Your task to perform on an android device: open app "Cash App" (install if not already installed) and enter user name: "submodules@gmail.com" and password: "heavenly" Image 0: 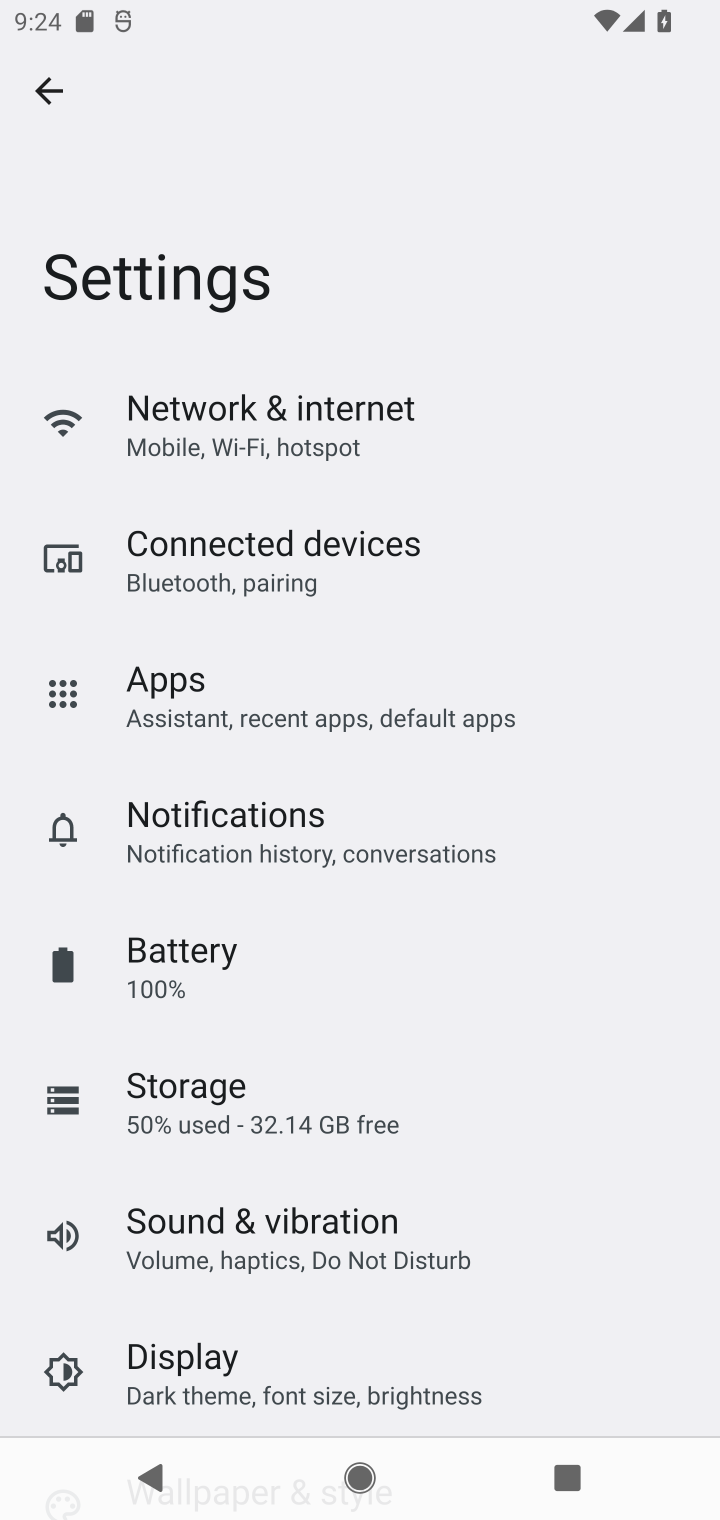
Step 0: press home button
Your task to perform on an android device: open app "Cash App" (install if not already installed) and enter user name: "submodules@gmail.com" and password: "heavenly" Image 1: 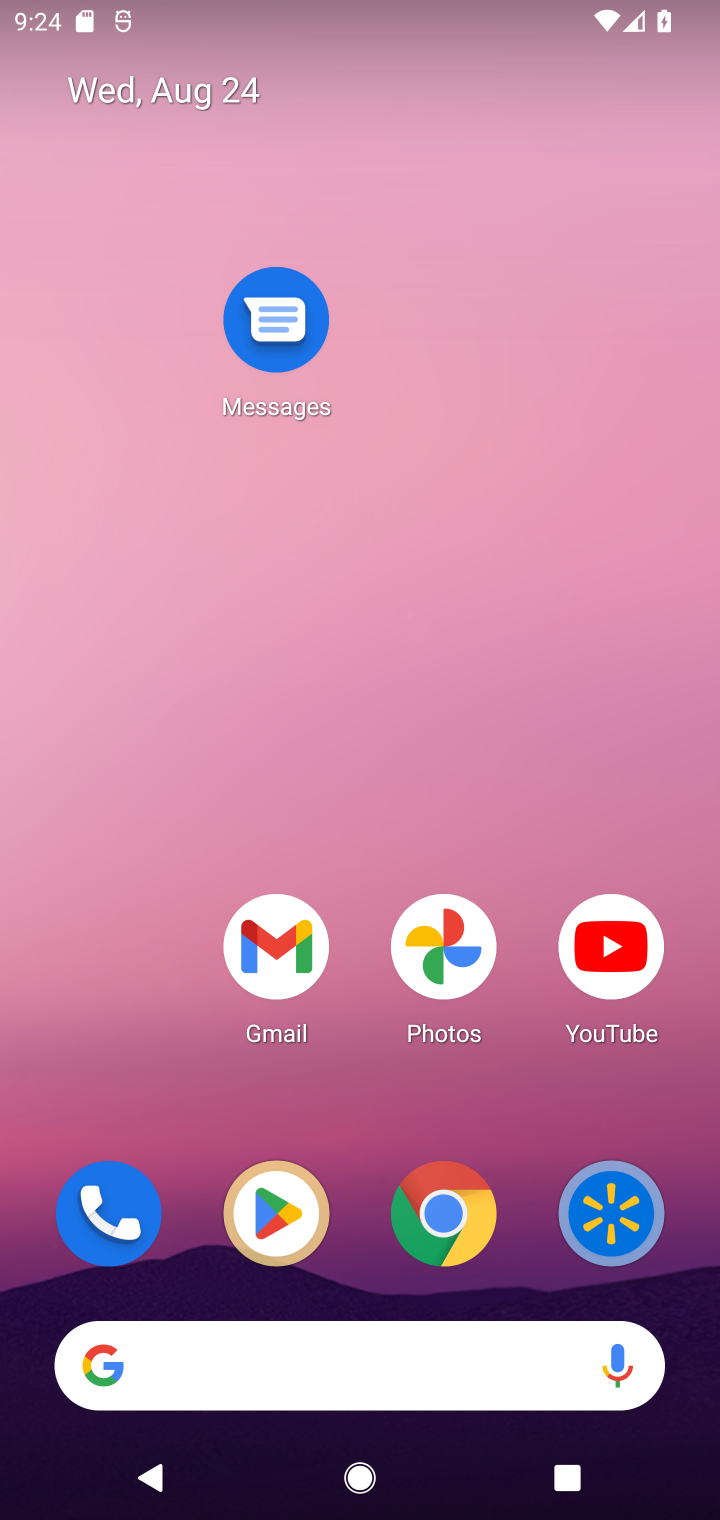
Step 1: click (277, 1210)
Your task to perform on an android device: open app "Cash App" (install if not already installed) and enter user name: "submodules@gmail.com" and password: "heavenly" Image 2: 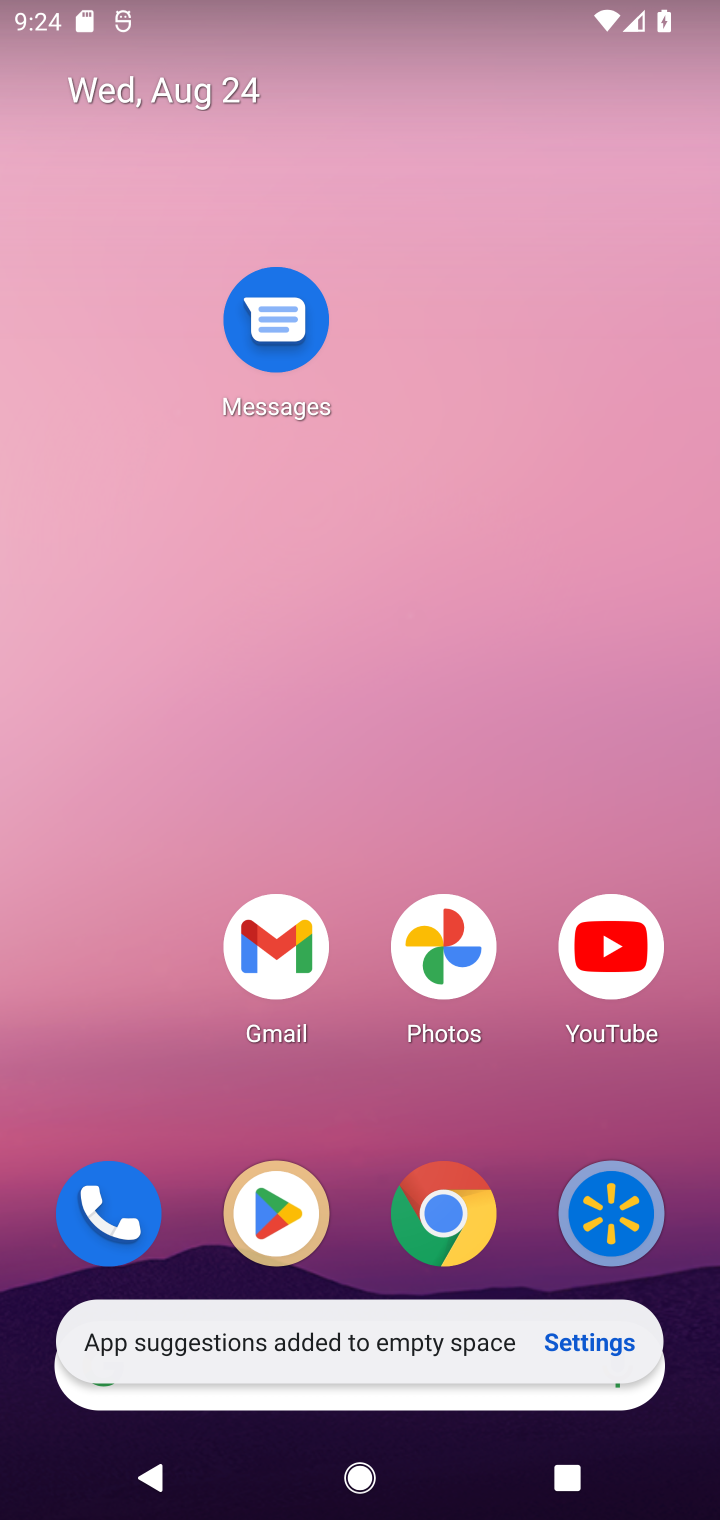
Step 2: click (288, 1207)
Your task to perform on an android device: open app "Cash App" (install if not already installed) and enter user name: "submodules@gmail.com" and password: "heavenly" Image 3: 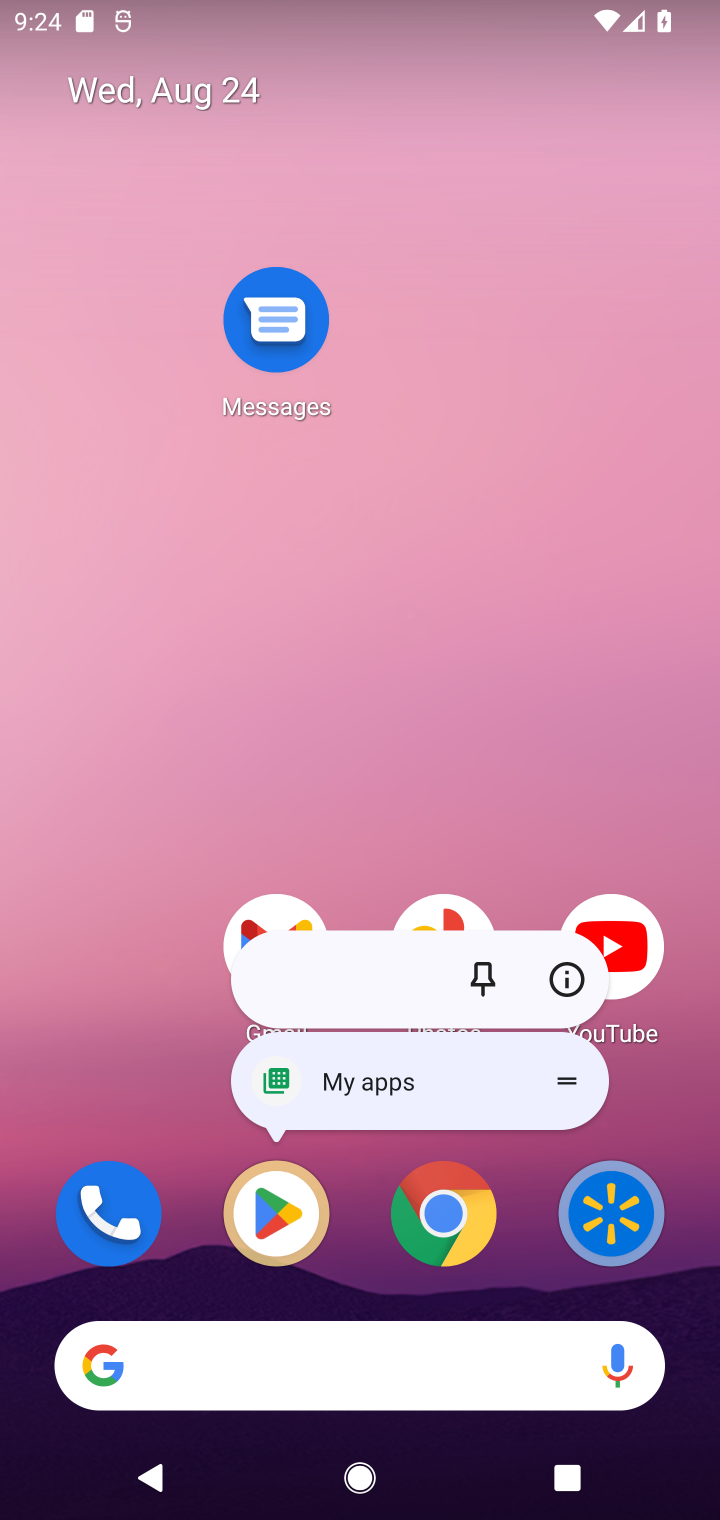
Step 3: click (290, 1209)
Your task to perform on an android device: open app "Cash App" (install if not already installed) and enter user name: "submodules@gmail.com" and password: "heavenly" Image 4: 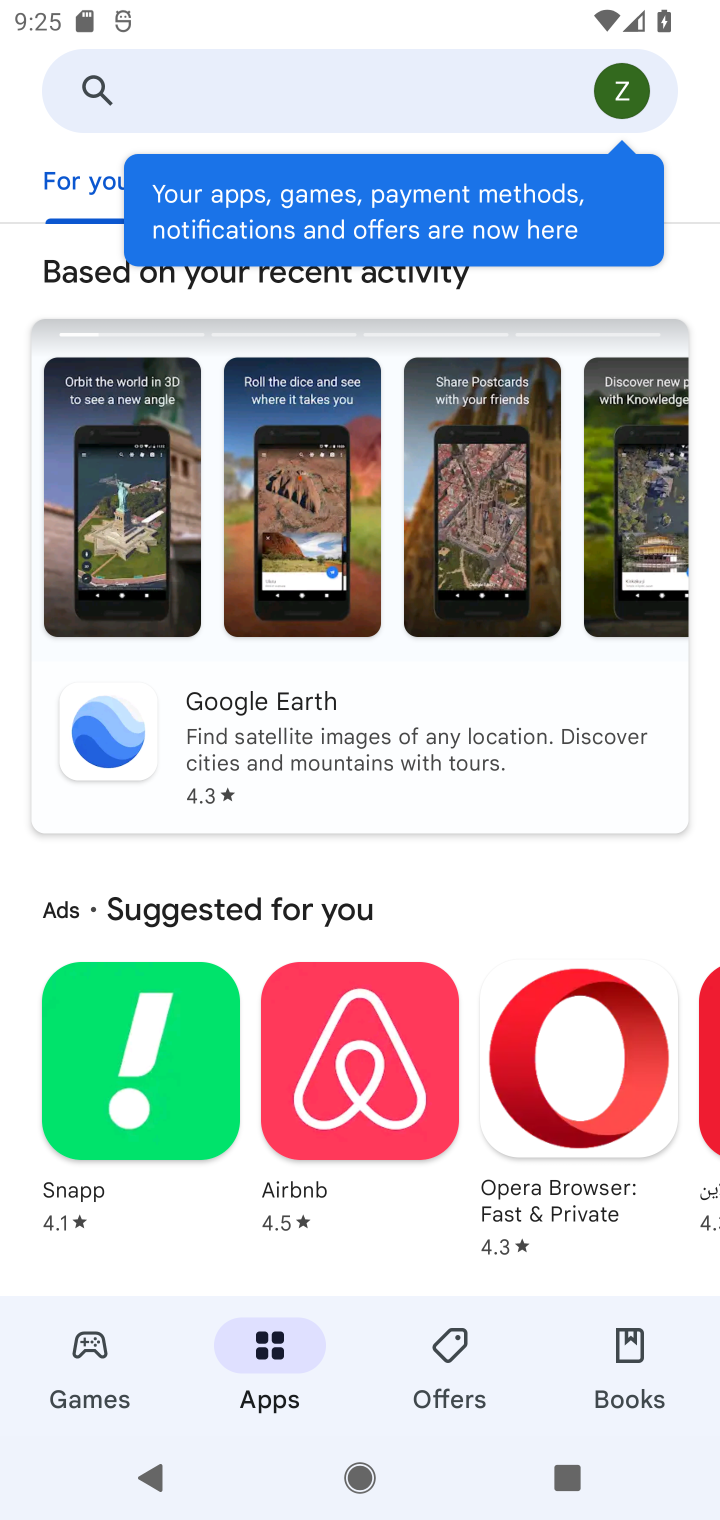
Step 4: click (353, 95)
Your task to perform on an android device: open app "Cash App" (install if not already installed) and enter user name: "submodules@gmail.com" and password: "heavenly" Image 5: 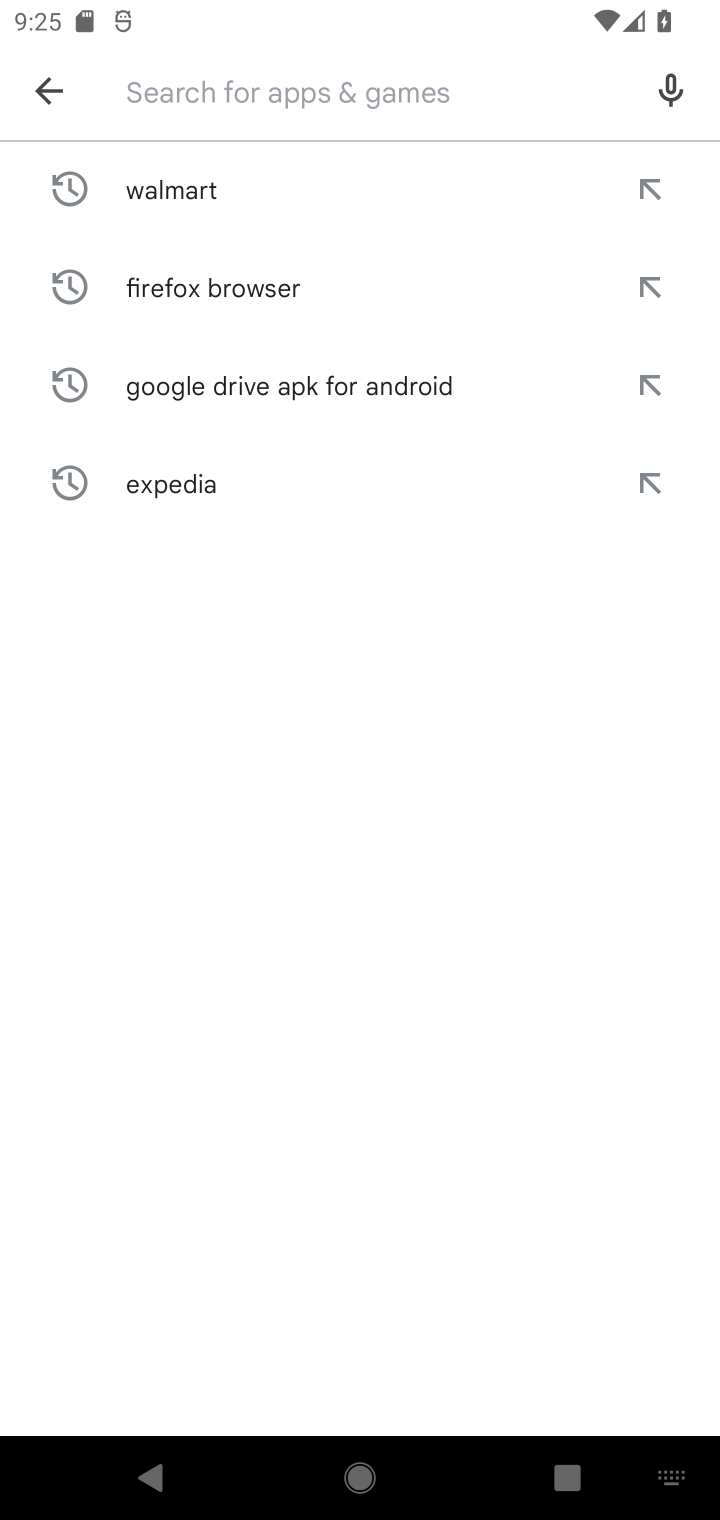
Step 5: type "CashAPp"
Your task to perform on an android device: open app "Cash App" (install if not already installed) and enter user name: "submodules@gmail.com" and password: "heavenly" Image 6: 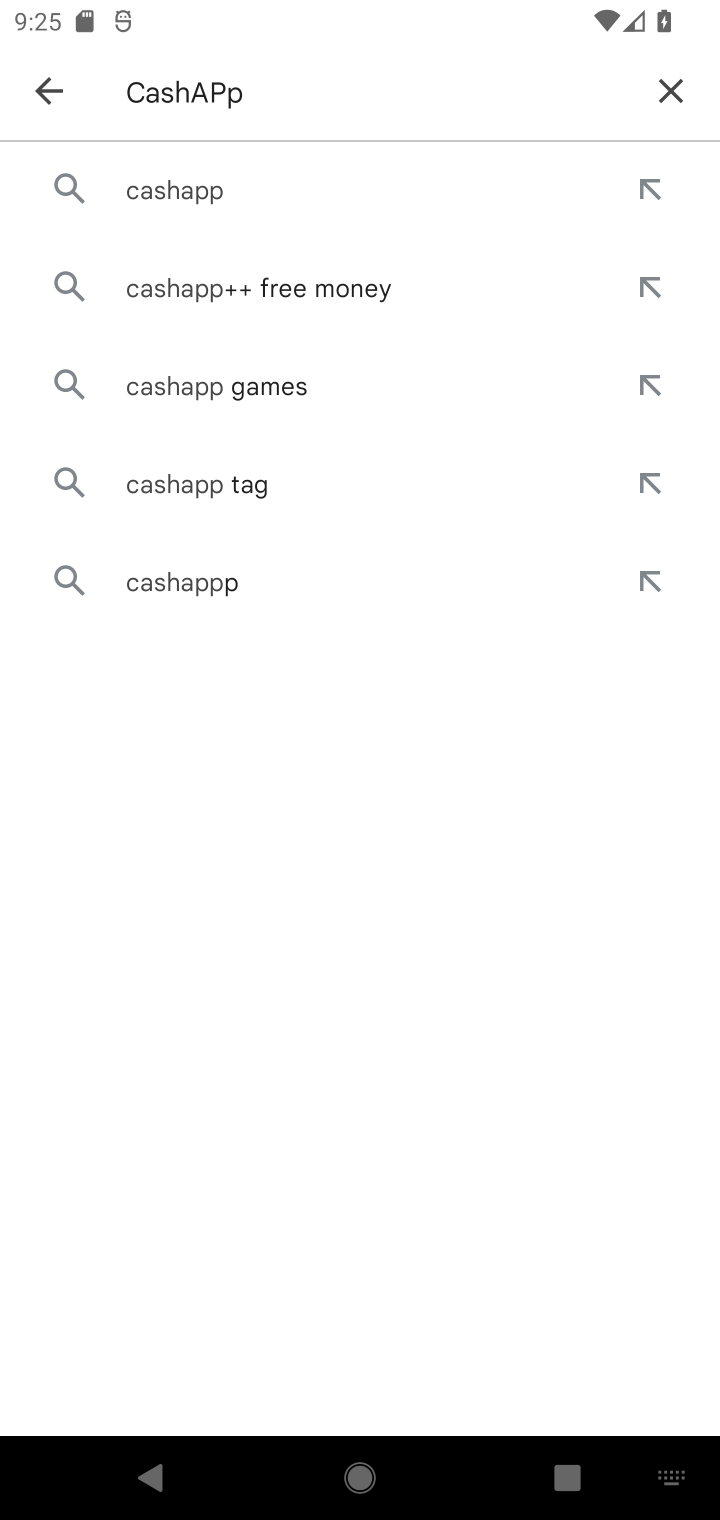
Step 6: click (207, 187)
Your task to perform on an android device: open app "Cash App" (install if not already installed) and enter user name: "submodules@gmail.com" and password: "heavenly" Image 7: 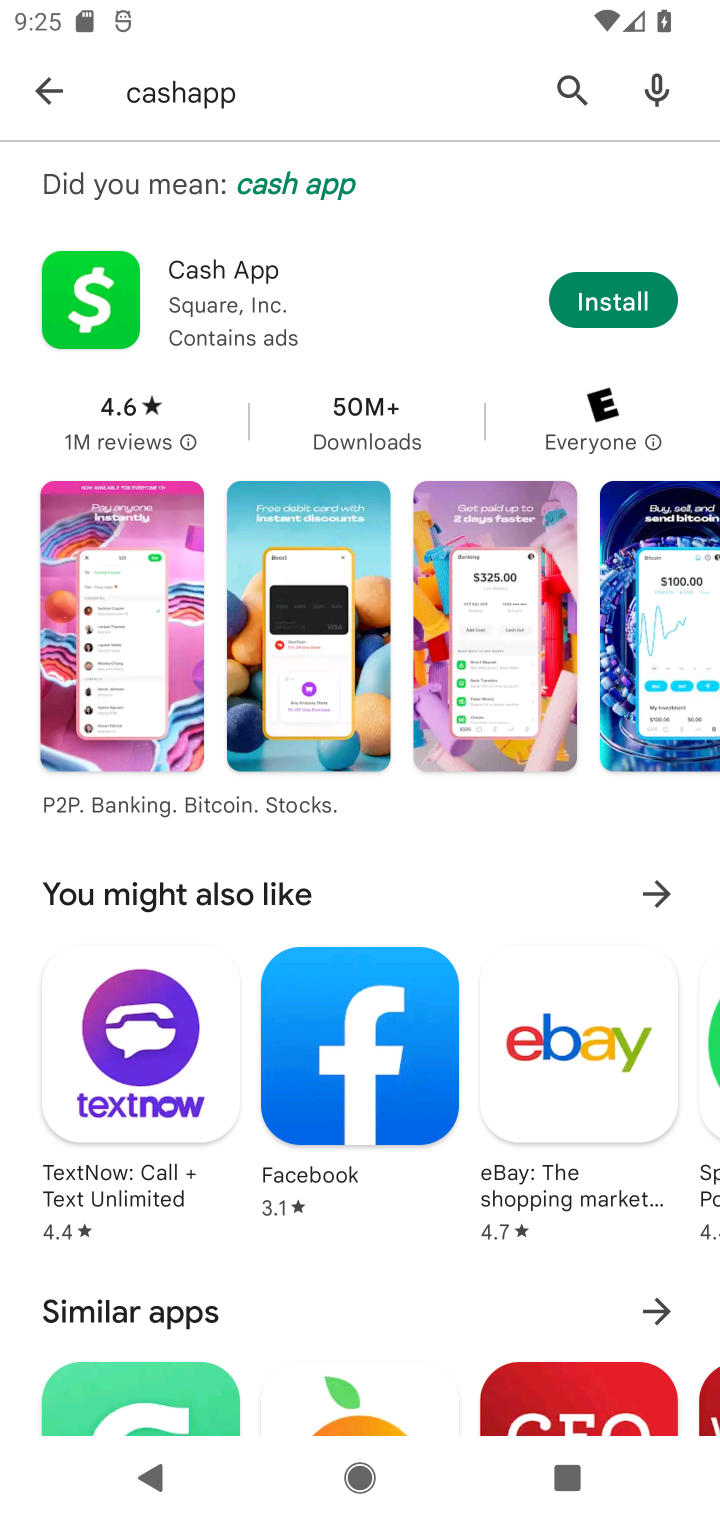
Step 7: click (663, 310)
Your task to perform on an android device: open app "Cash App" (install if not already installed) and enter user name: "submodules@gmail.com" and password: "heavenly" Image 8: 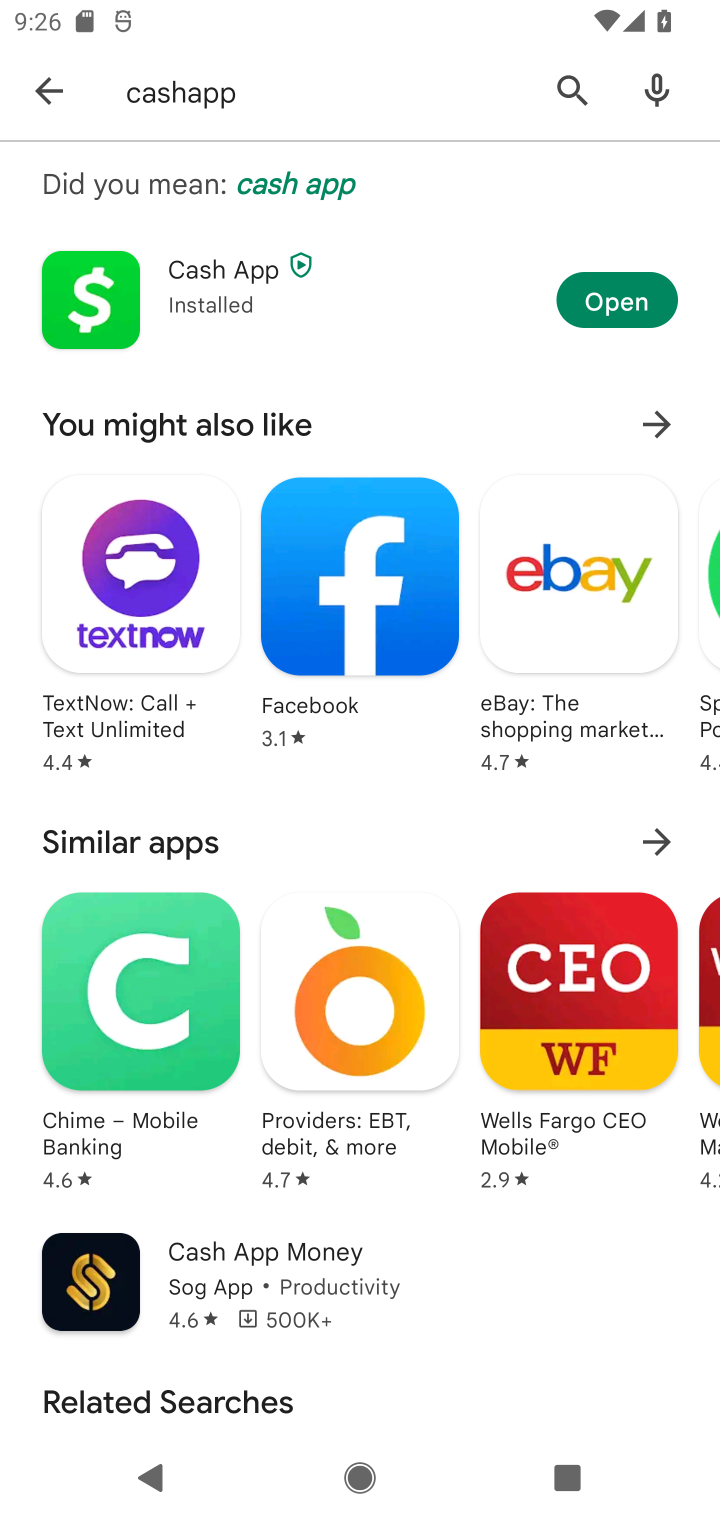
Step 8: click (608, 295)
Your task to perform on an android device: open app "Cash App" (install if not already installed) and enter user name: "submodules@gmail.com" and password: "heavenly" Image 9: 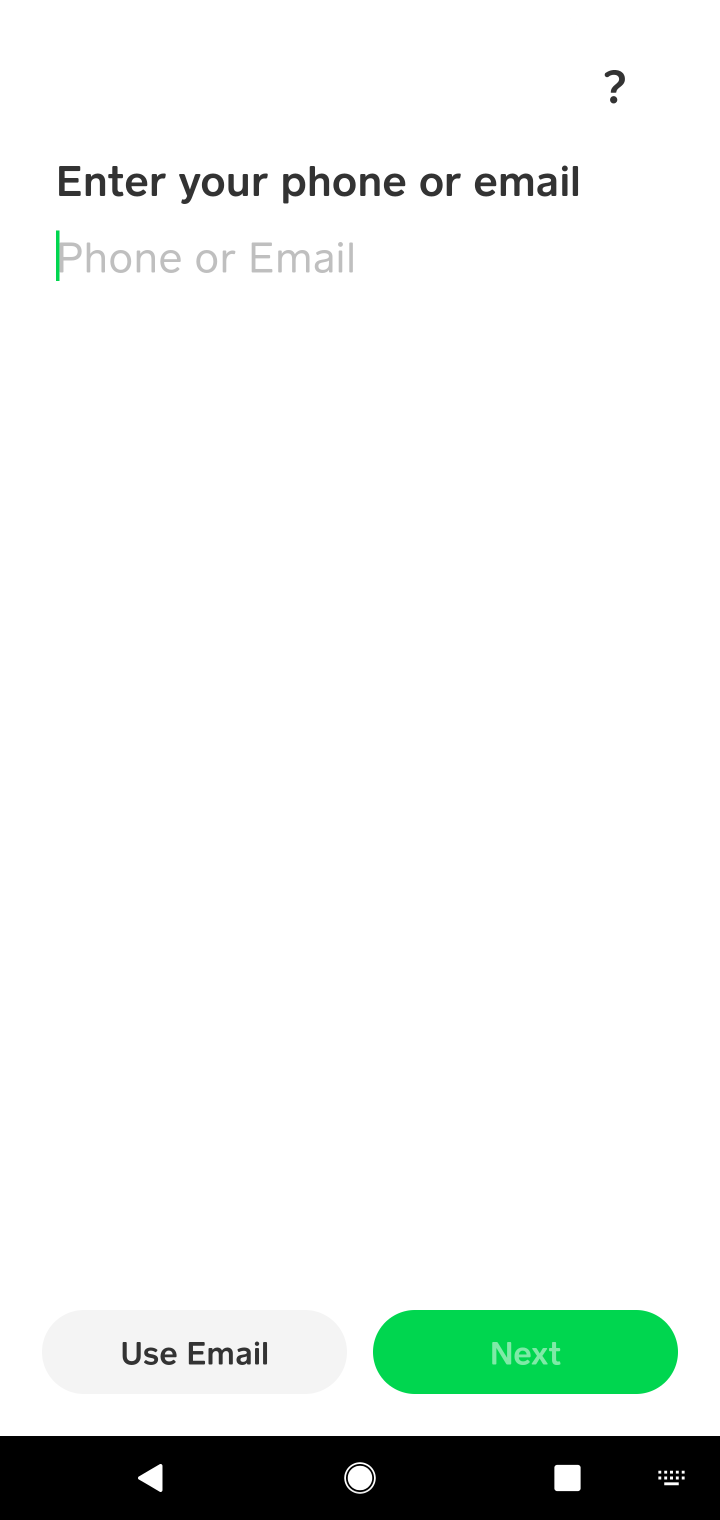
Step 9: click (233, 1331)
Your task to perform on an android device: open app "Cash App" (install if not already installed) and enter user name: "submodules@gmail.com" and password: "heavenly" Image 10: 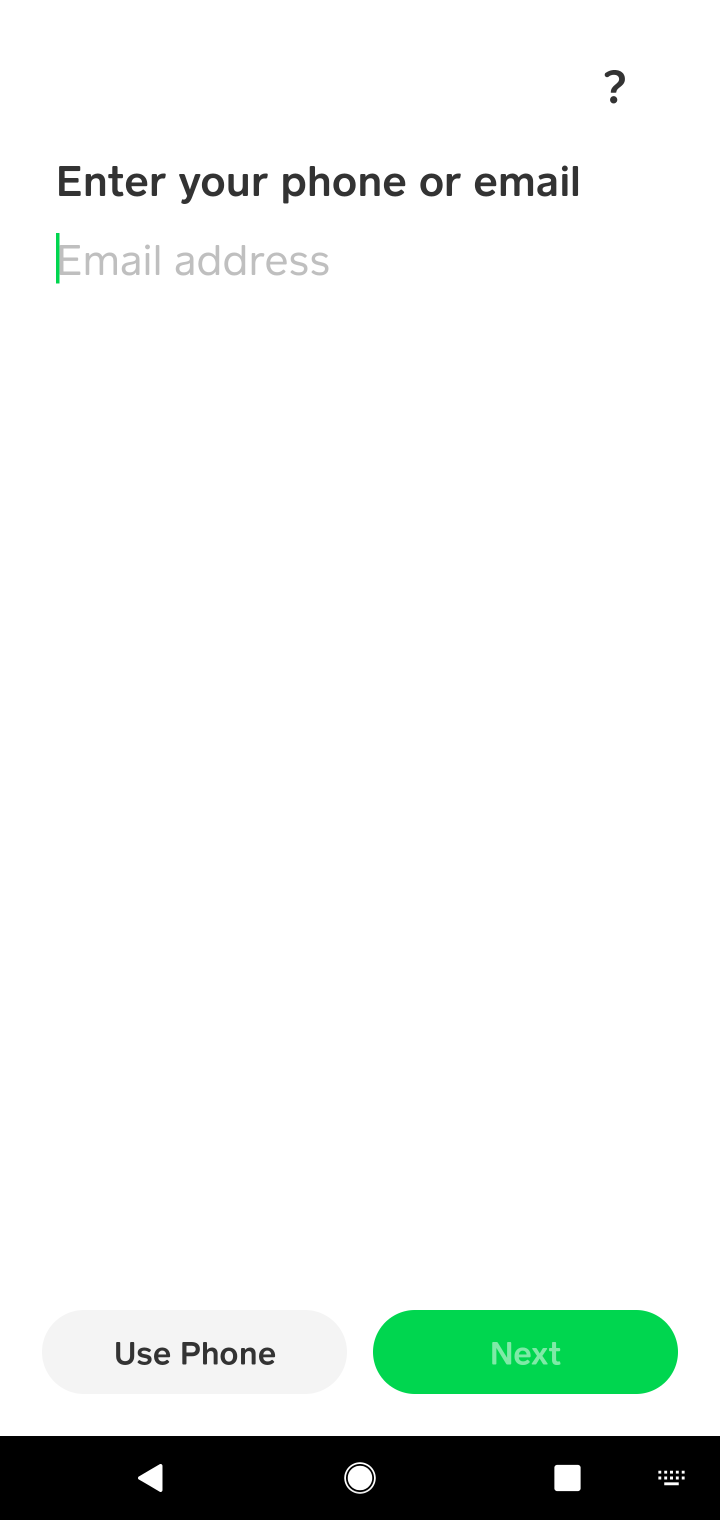
Step 10: click (141, 264)
Your task to perform on an android device: open app "Cash App" (install if not already installed) and enter user name: "submodules@gmail.com" and password: "heavenly" Image 11: 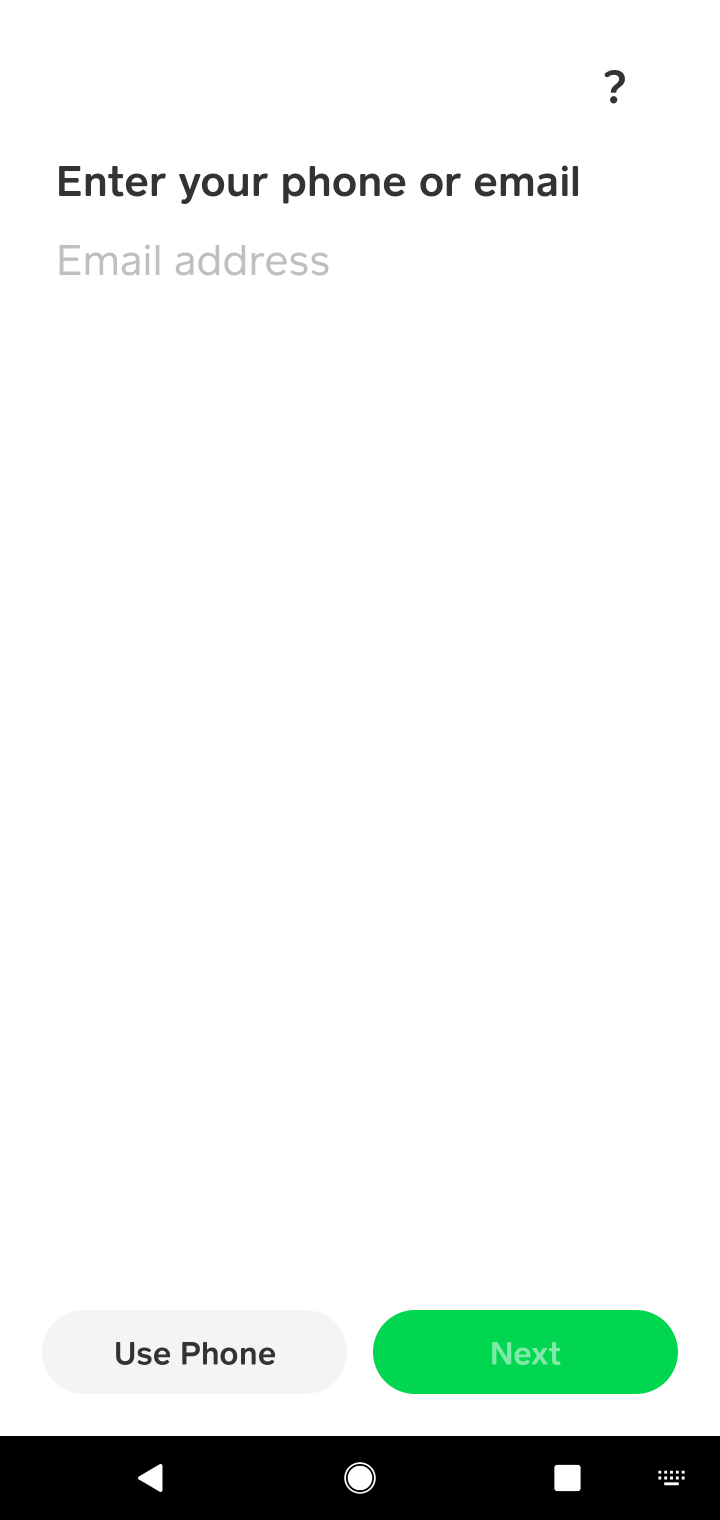
Step 11: task complete